Your task to perform on an android device: choose inbox layout in the gmail app Image 0: 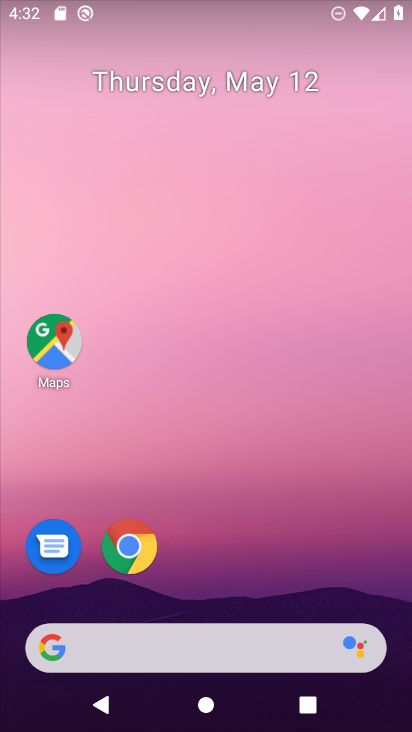
Step 0: drag from (260, 430) to (254, 193)
Your task to perform on an android device: choose inbox layout in the gmail app Image 1: 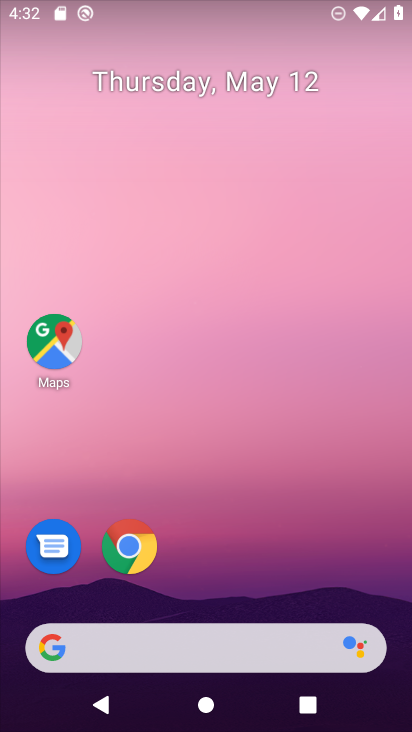
Step 1: drag from (247, 398) to (247, 205)
Your task to perform on an android device: choose inbox layout in the gmail app Image 2: 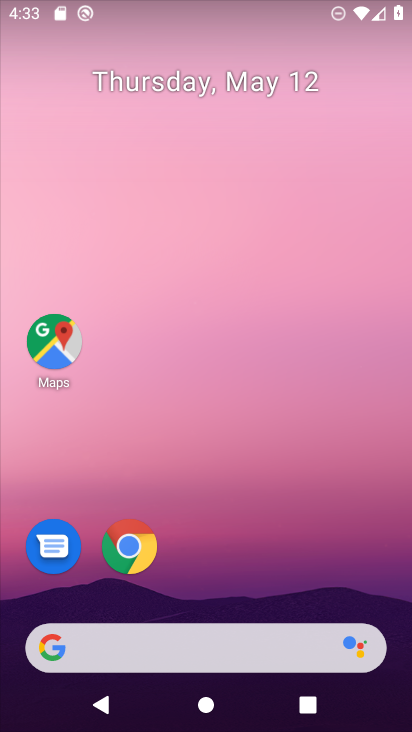
Step 2: drag from (240, 549) to (230, 246)
Your task to perform on an android device: choose inbox layout in the gmail app Image 3: 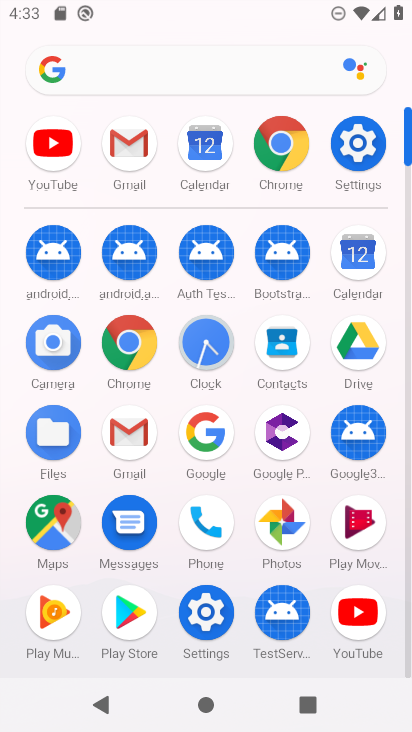
Step 3: click (126, 132)
Your task to perform on an android device: choose inbox layout in the gmail app Image 4: 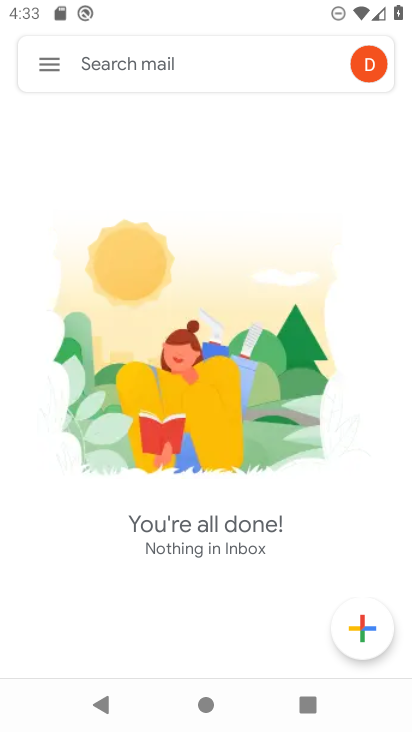
Step 4: click (38, 61)
Your task to perform on an android device: choose inbox layout in the gmail app Image 5: 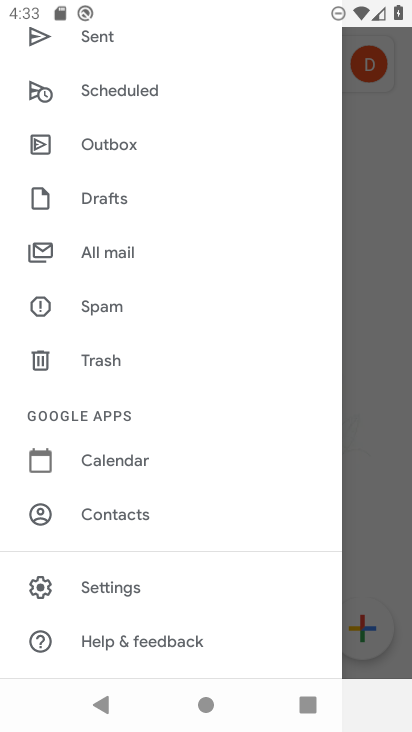
Step 5: click (129, 572)
Your task to perform on an android device: choose inbox layout in the gmail app Image 6: 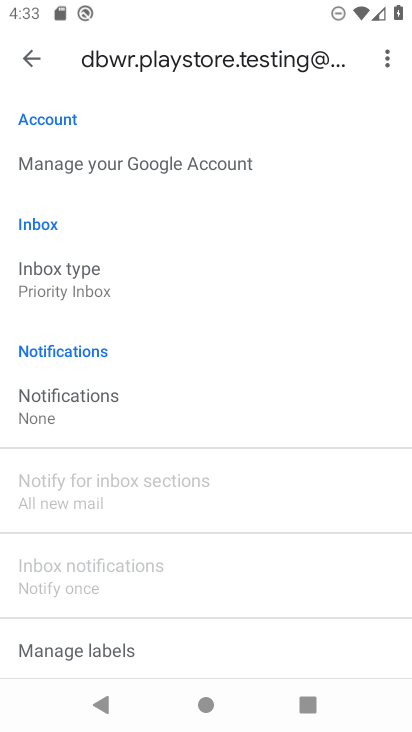
Step 6: click (78, 279)
Your task to perform on an android device: choose inbox layout in the gmail app Image 7: 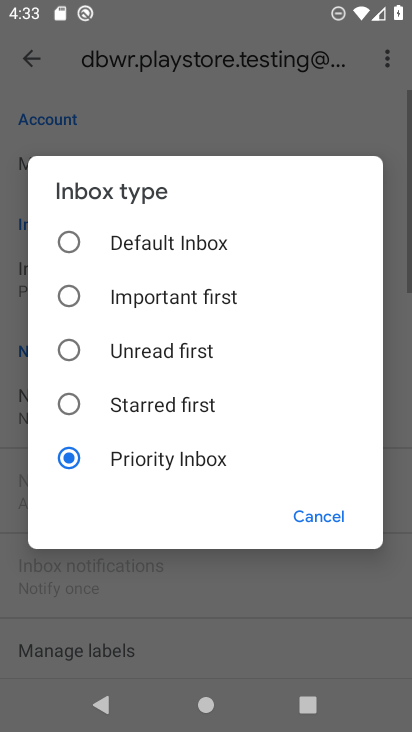
Step 7: click (136, 351)
Your task to perform on an android device: choose inbox layout in the gmail app Image 8: 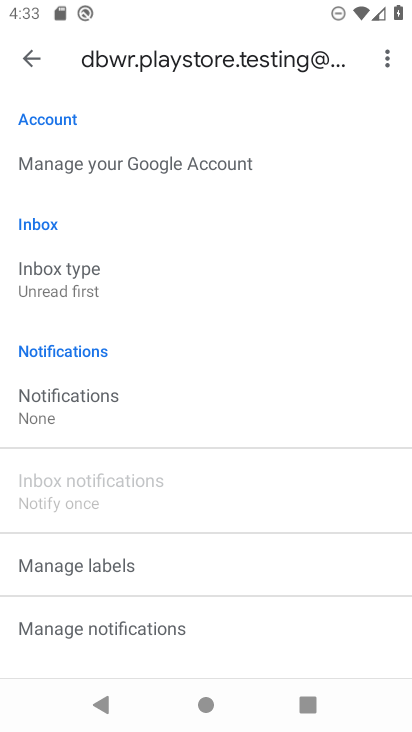
Step 8: task complete